Your task to perform on an android device: What's the latest video from GameSpot Reviews? Image 0: 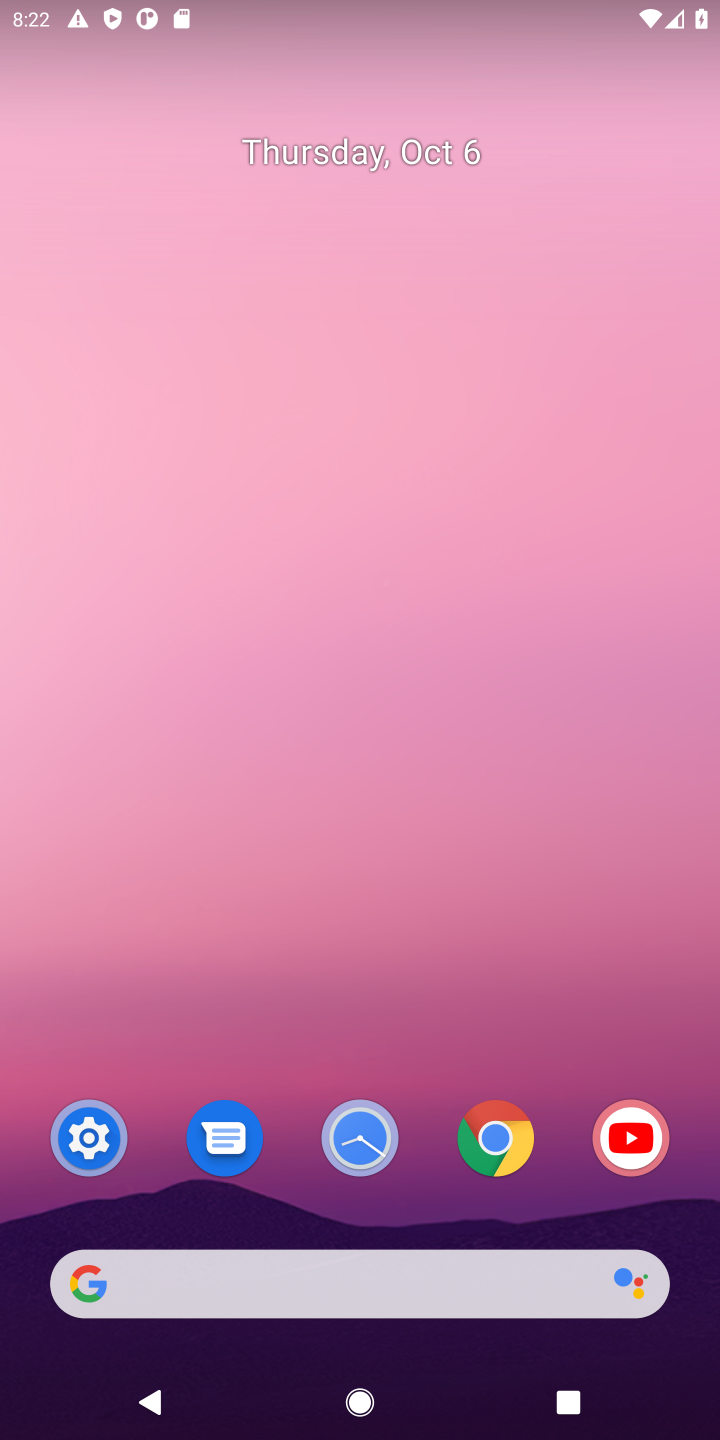
Step 0: click (492, 1148)
Your task to perform on an android device: What's the latest video from GameSpot Reviews? Image 1: 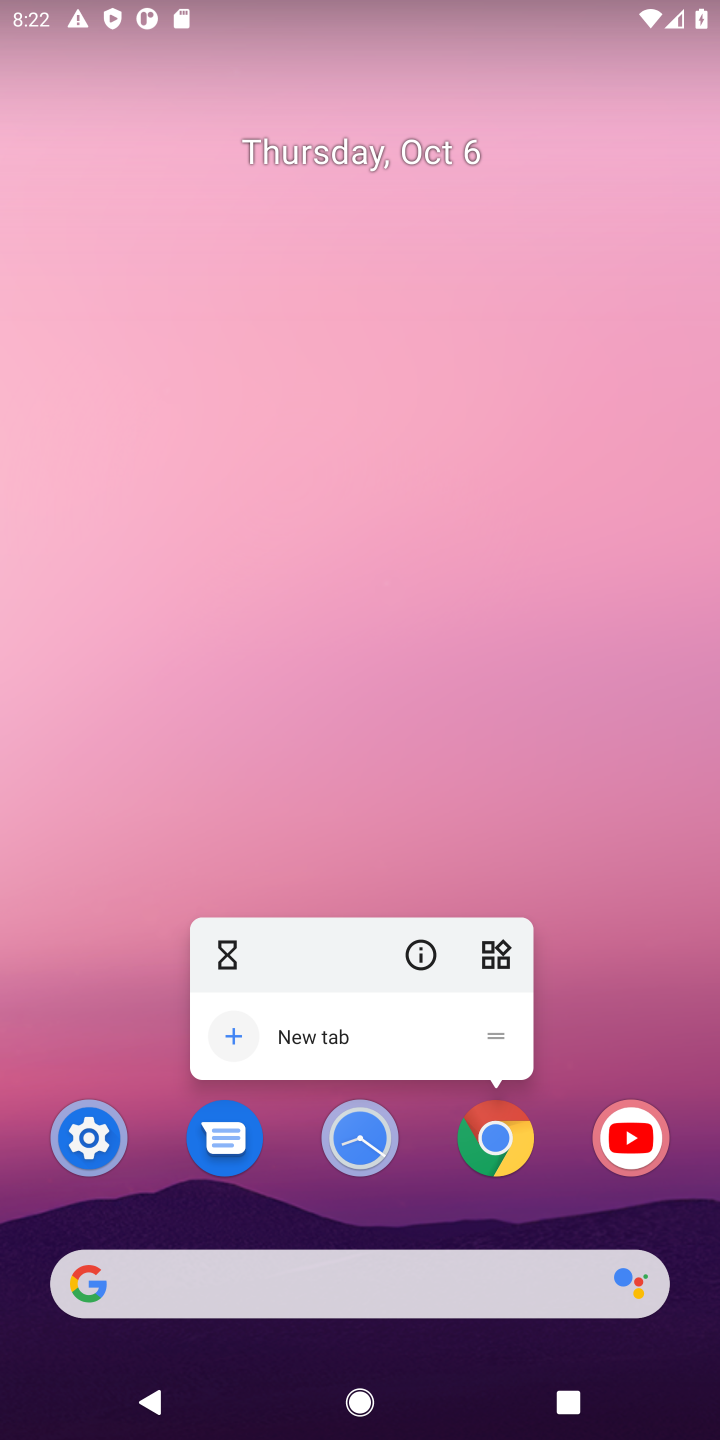
Step 1: click (513, 1135)
Your task to perform on an android device: What's the latest video from GameSpot Reviews? Image 2: 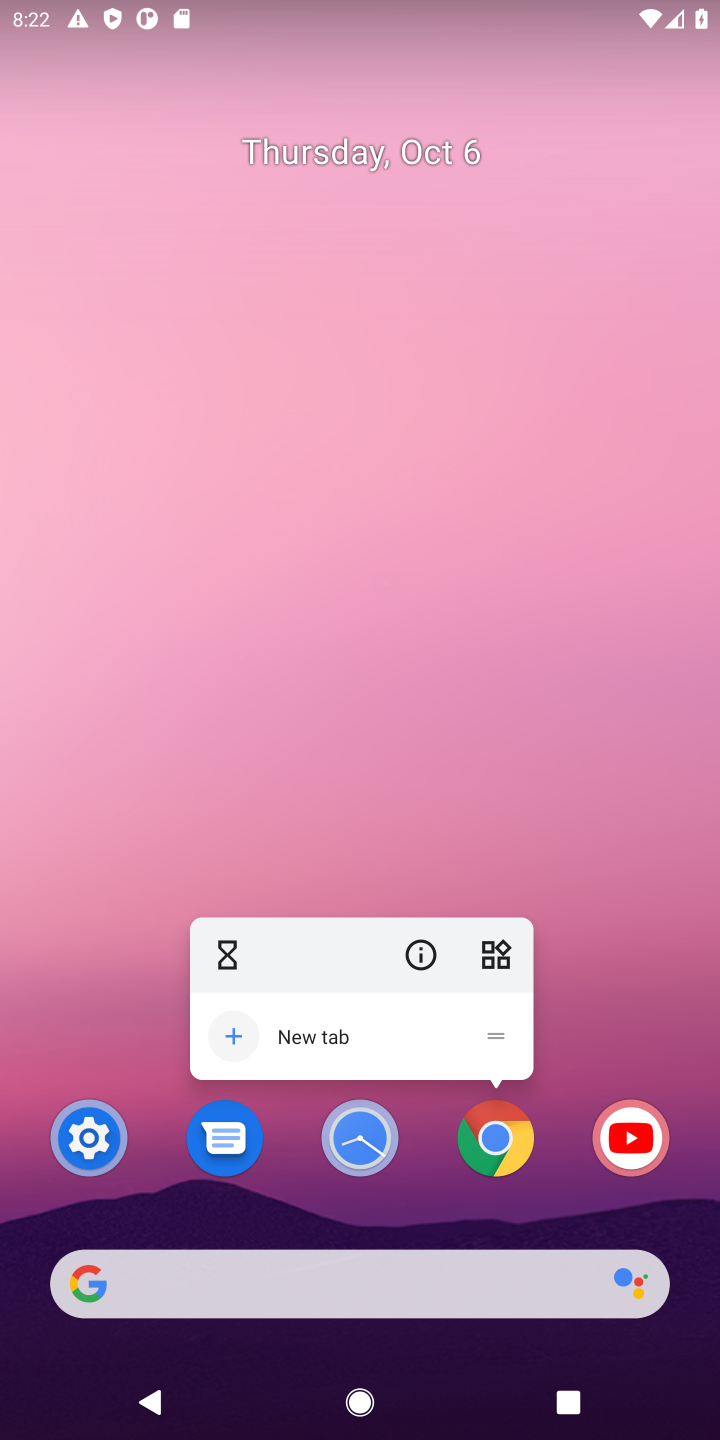
Step 2: click (511, 1155)
Your task to perform on an android device: What's the latest video from GameSpot Reviews? Image 3: 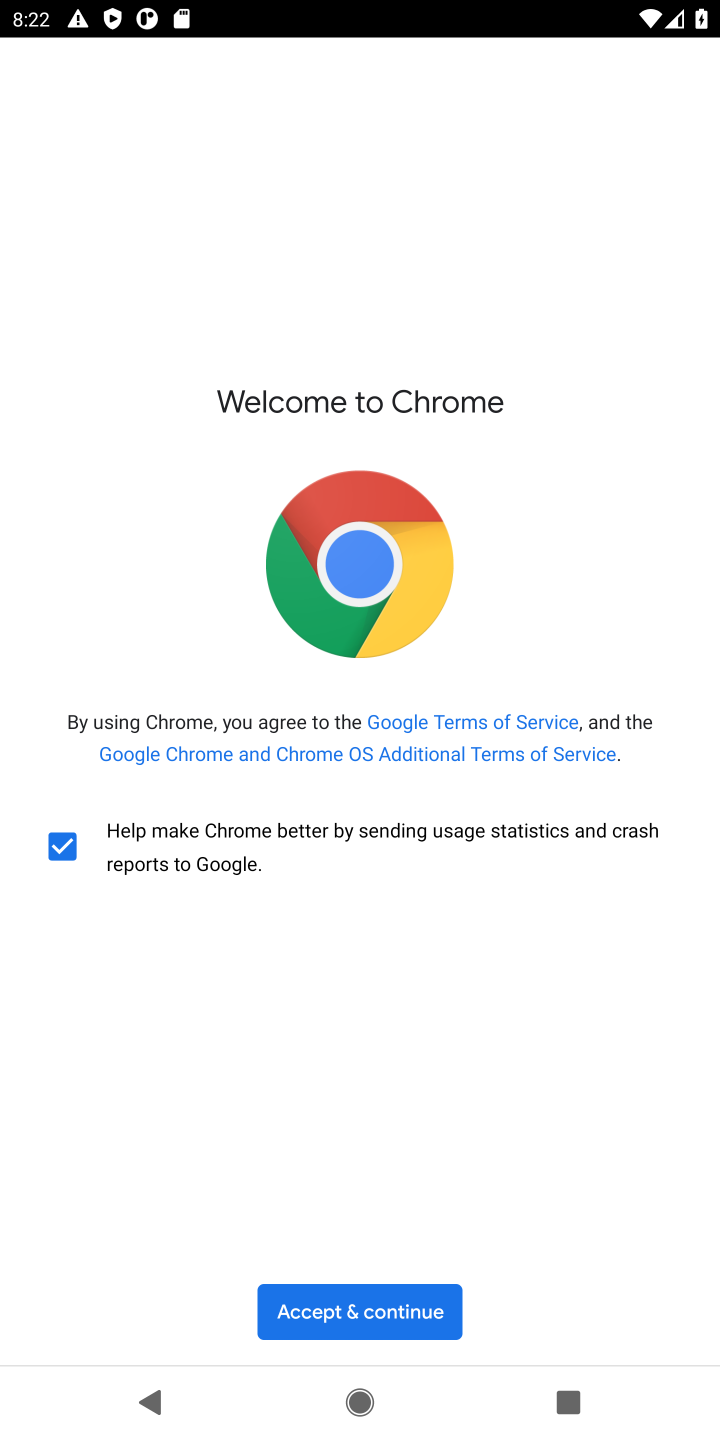
Step 3: click (350, 1330)
Your task to perform on an android device: What's the latest video from GameSpot Reviews? Image 4: 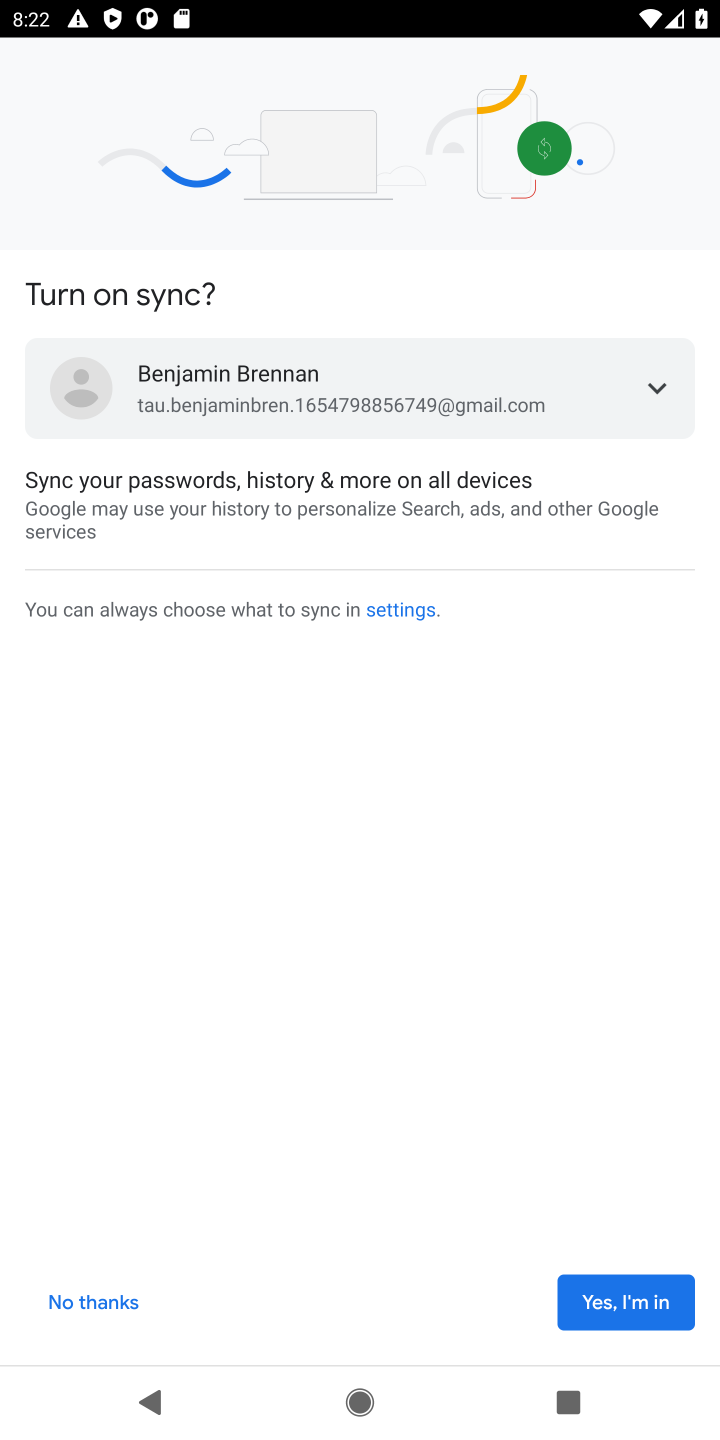
Step 4: click (602, 1311)
Your task to perform on an android device: What's the latest video from GameSpot Reviews? Image 5: 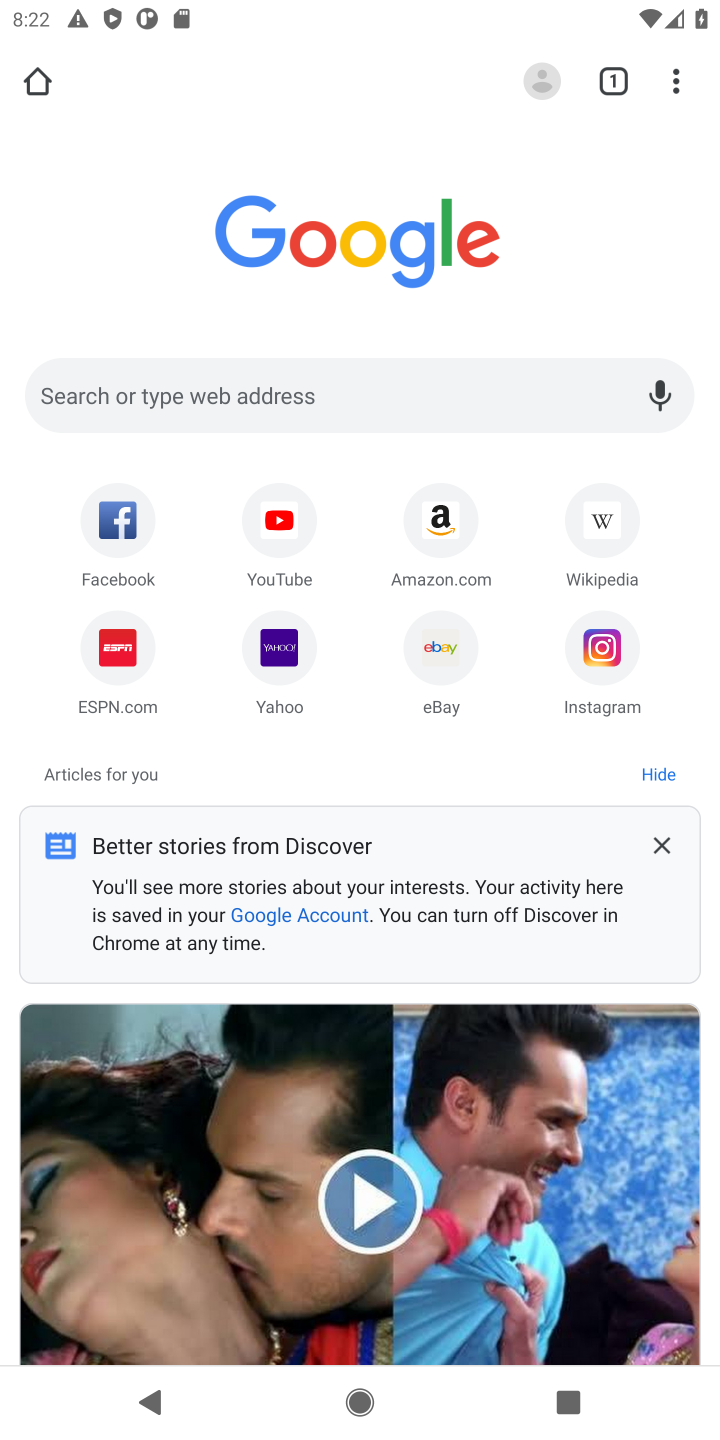
Step 5: click (274, 384)
Your task to perform on an android device: What's the latest video from GameSpot Reviews? Image 6: 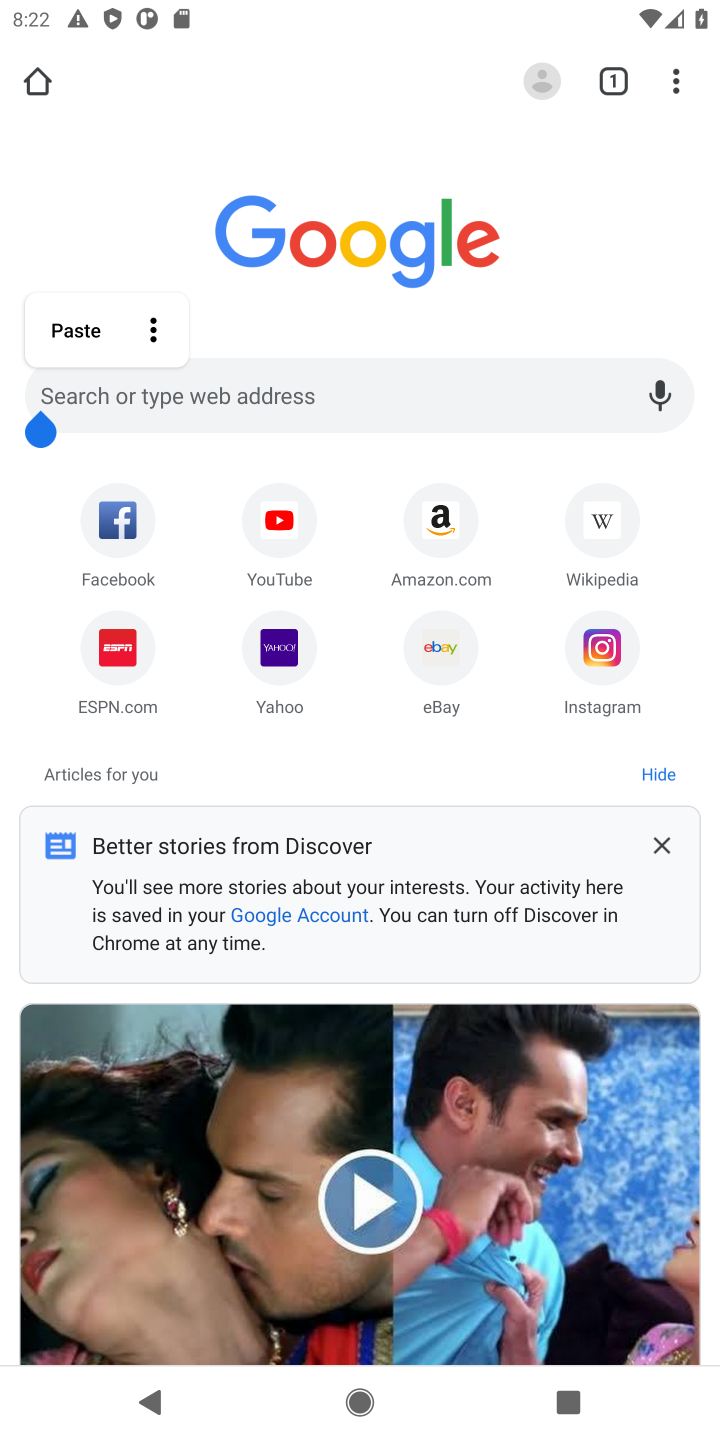
Step 6: click (255, 396)
Your task to perform on an android device: What's the latest video from GameSpot Reviews? Image 7: 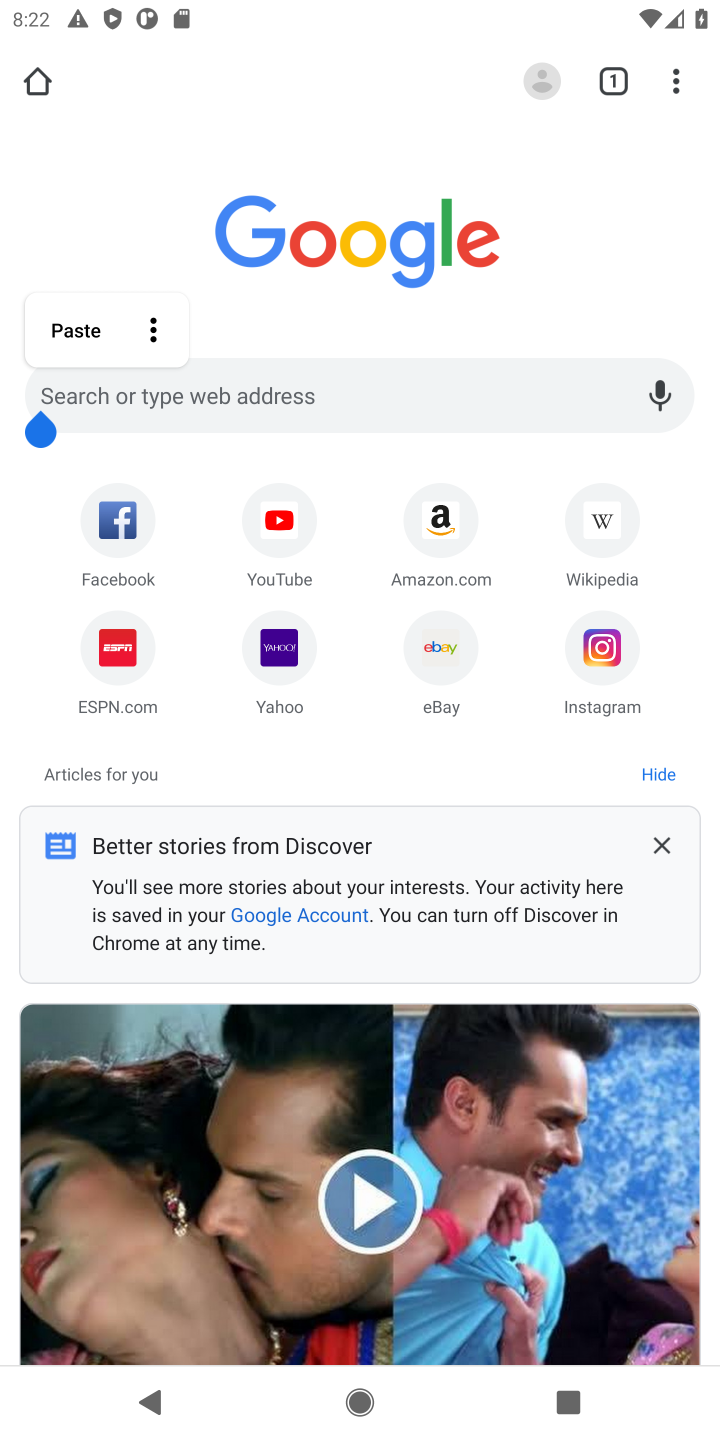
Step 7: click (115, 391)
Your task to perform on an android device: What's the latest video from GameSpot Reviews? Image 8: 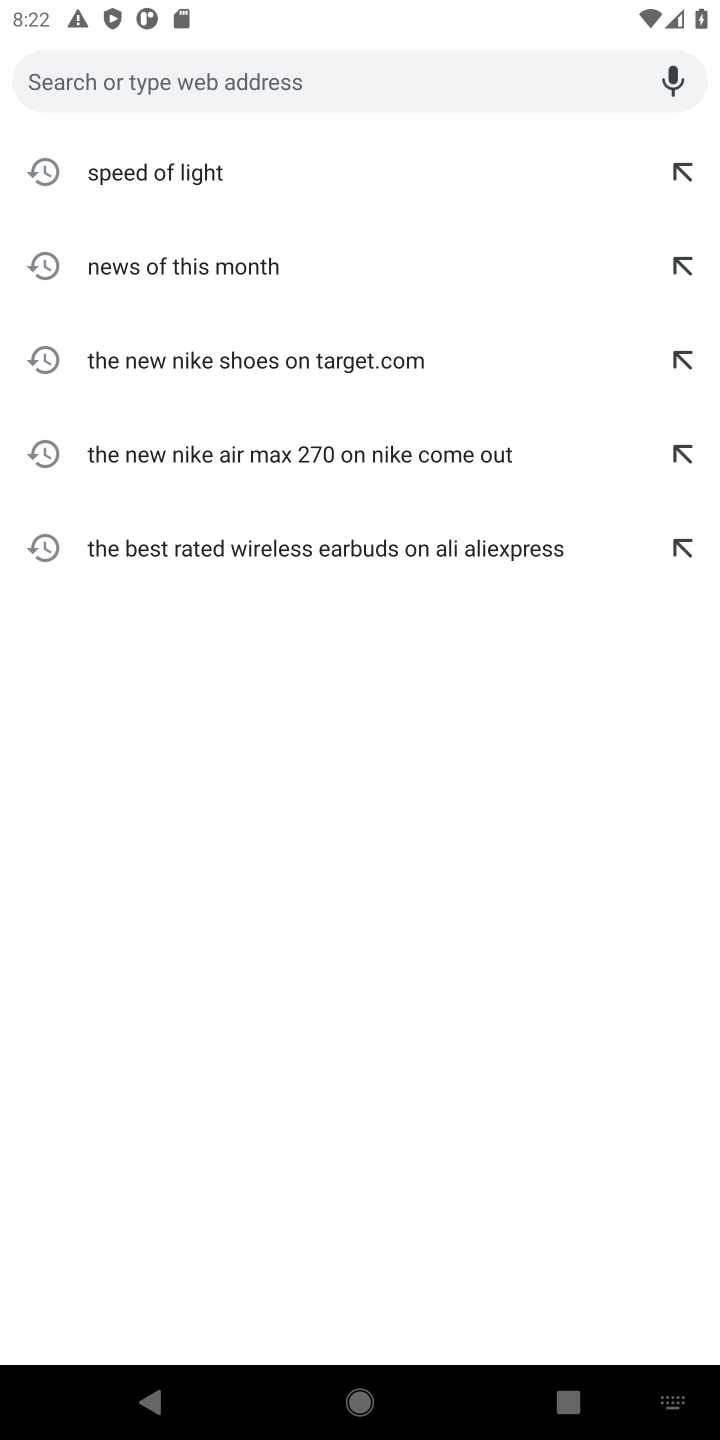
Step 8: type " latest video from GameSpot Reviews"
Your task to perform on an android device: What's the latest video from GameSpot Reviews? Image 9: 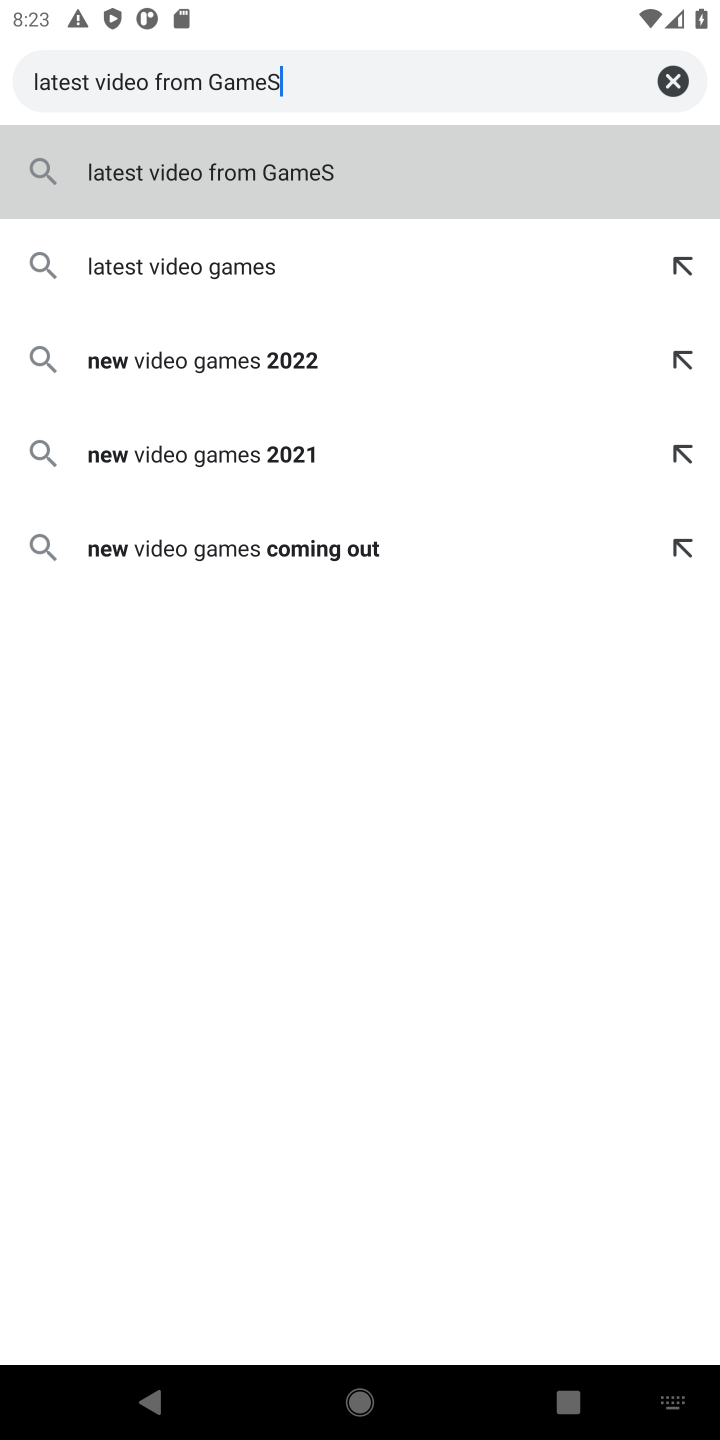
Step 9: click (286, 177)
Your task to perform on an android device: What's the latest video from GameSpot Reviews? Image 10: 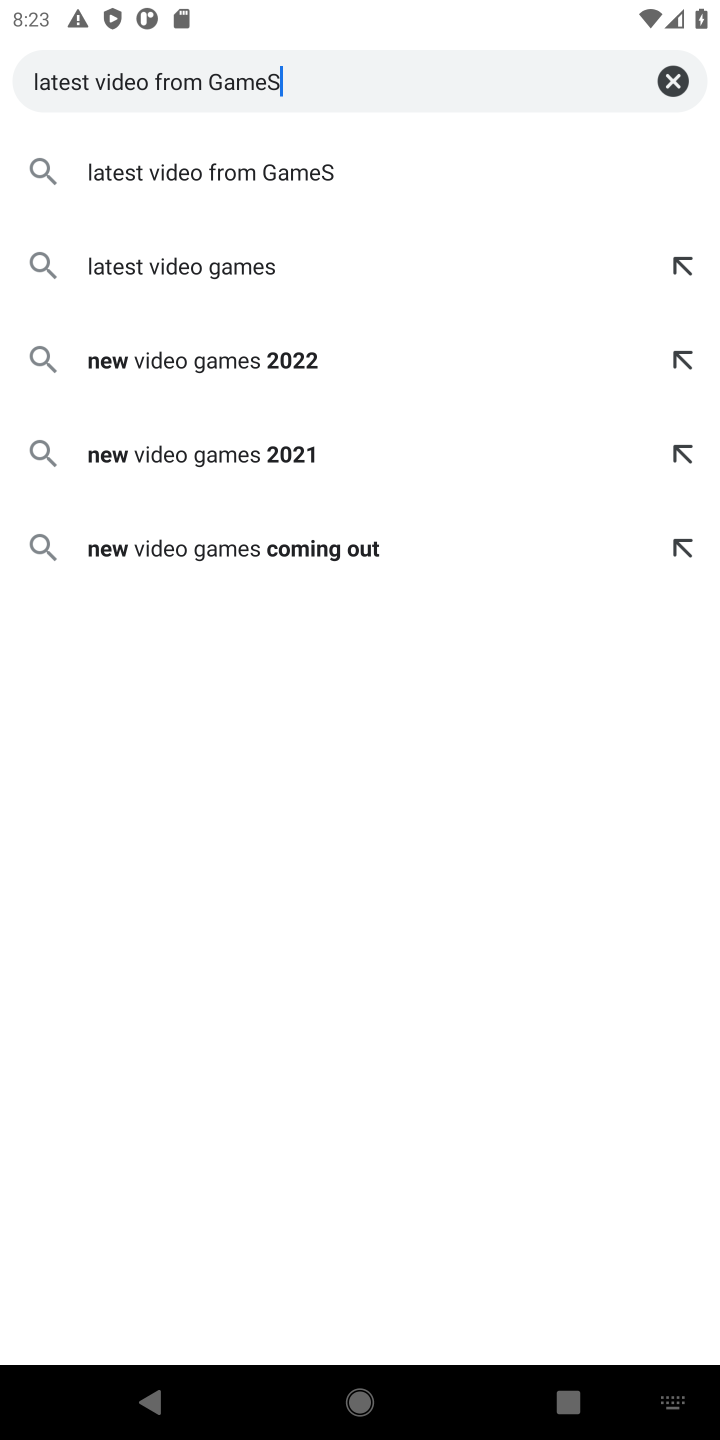
Step 10: click (672, 74)
Your task to perform on an android device: What's the latest video from GameSpot Reviews? Image 11: 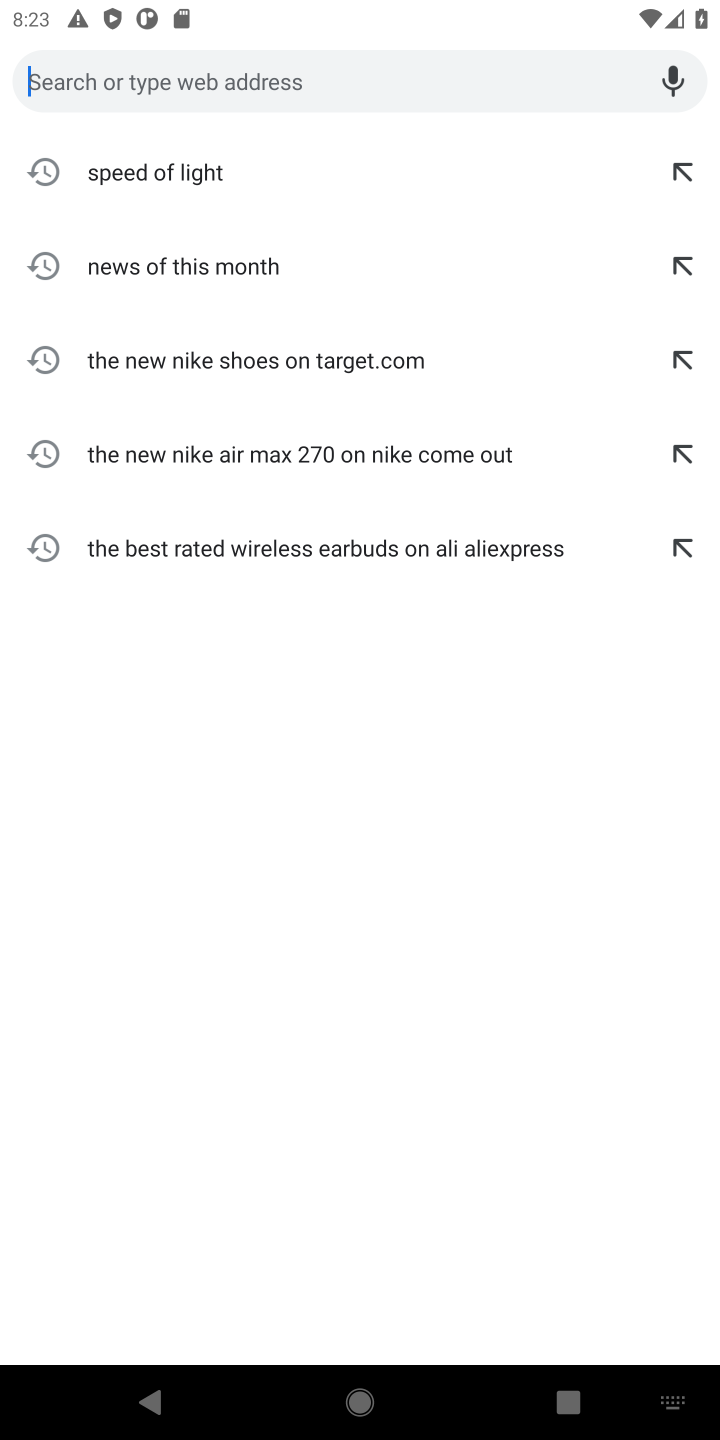
Step 11: type "latest video from GameSpot Reviews"
Your task to perform on an android device: What's the latest video from GameSpot Reviews? Image 12: 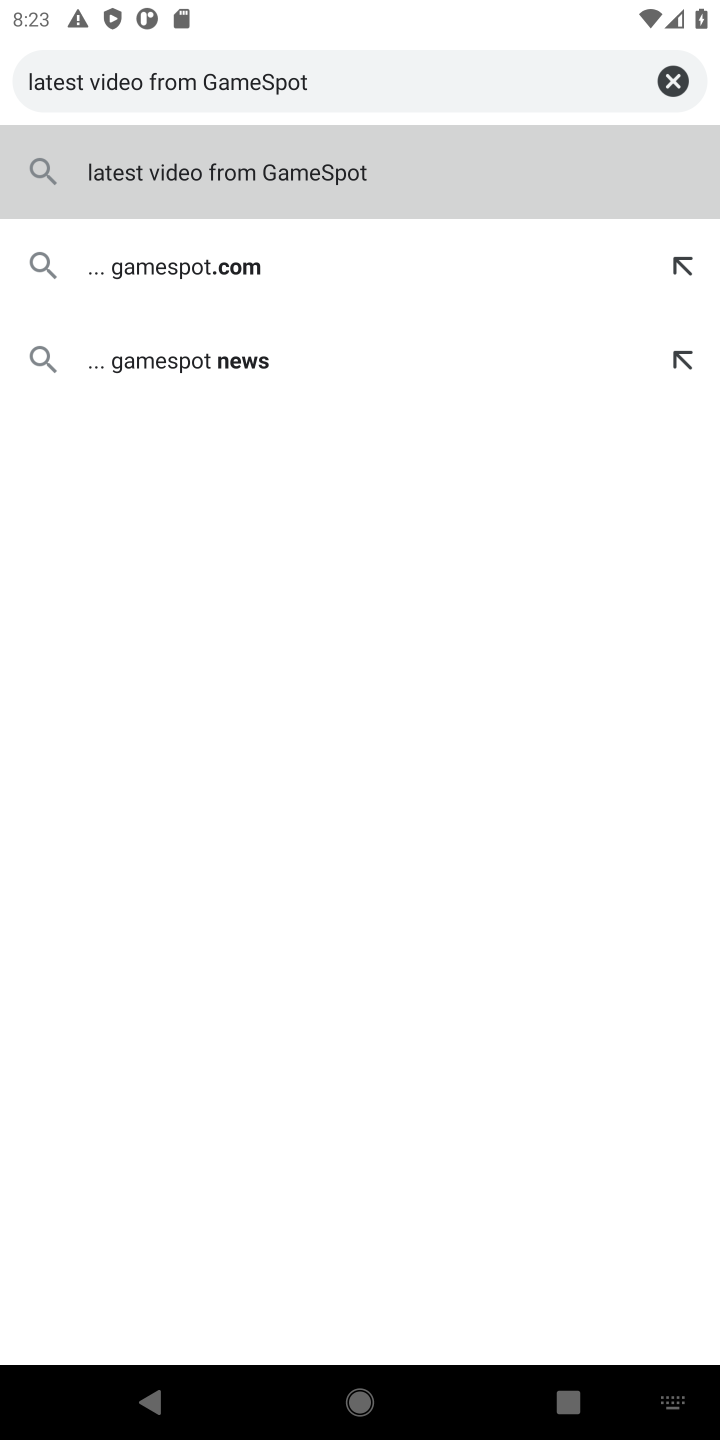
Step 12: click (331, 172)
Your task to perform on an android device: What's the latest video from GameSpot Reviews? Image 13: 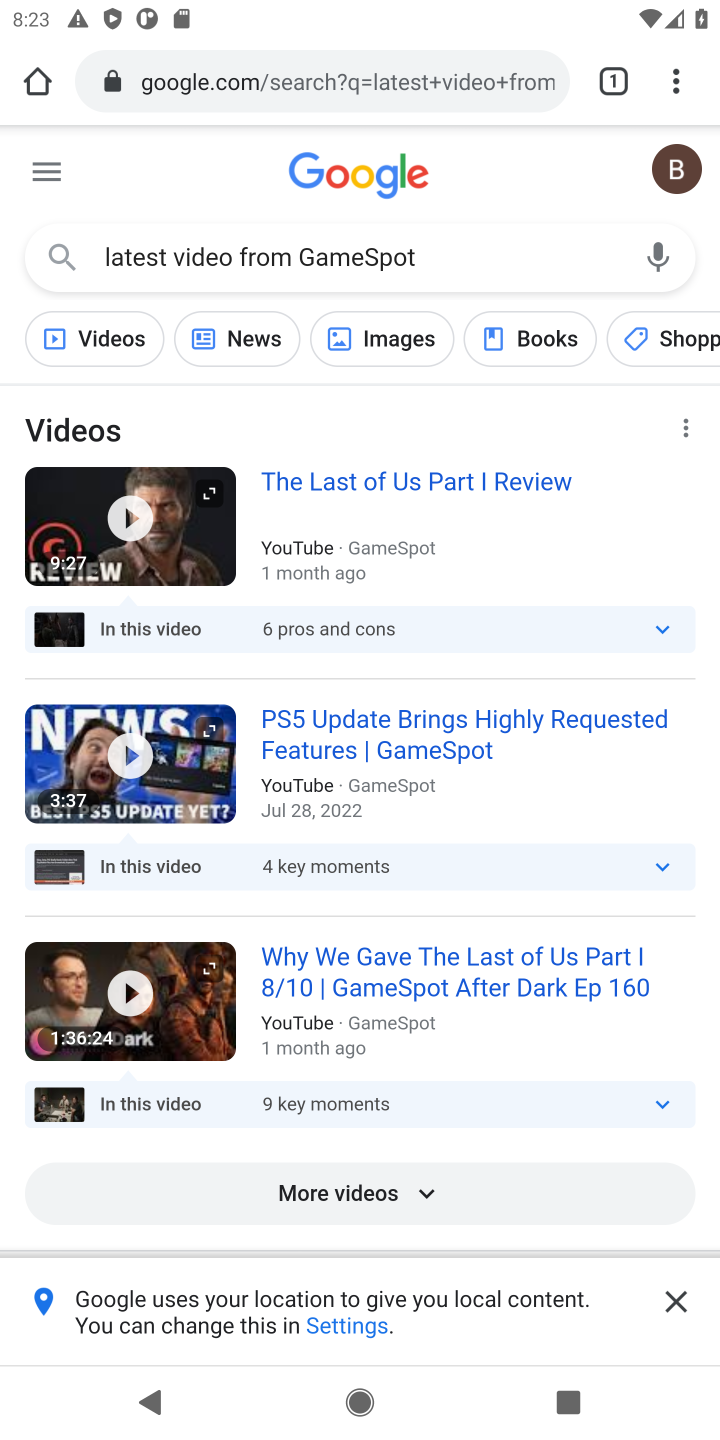
Step 13: task complete